Your task to perform on an android device: Open the phone app and click the voicemail tab. Image 0: 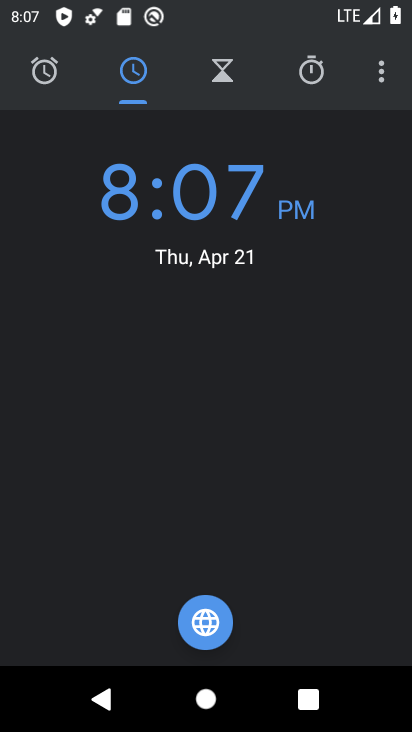
Step 0: press home button
Your task to perform on an android device: Open the phone app and click the voicemail tab. Image 1: 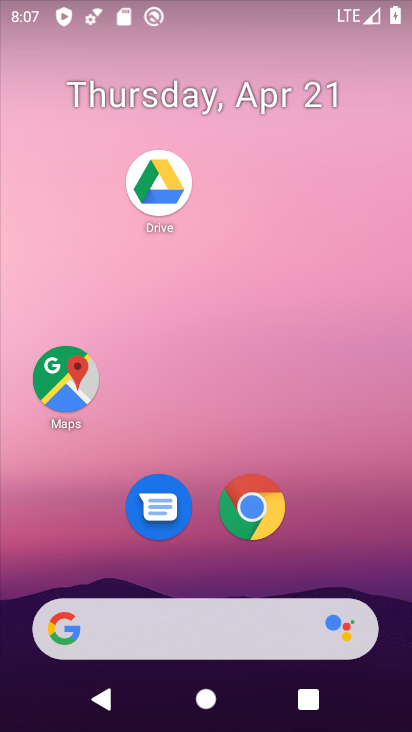
Step 1: drag from (361, 556) to (356, 179)
Your task to perform on an android device: Open the phone app and click the voicemail tab. Image 2: 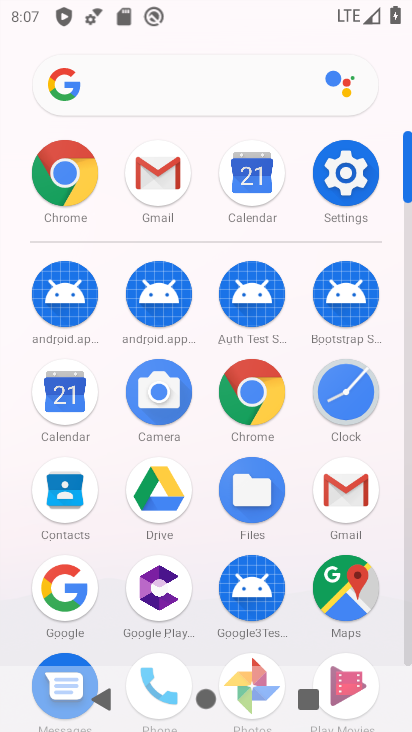
Step 2: drag from (394, 551) to (388, 285)
Your task to perform on an android device: Open the phone app and click the voicemail tab. Image 3: 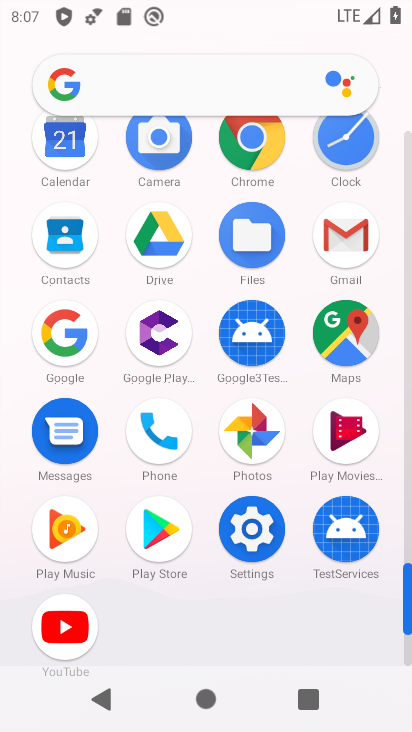
Step 3: click (162, 457)
Your task to perform on an android device: Open the phone app and click the voicemail tab. Image 4: 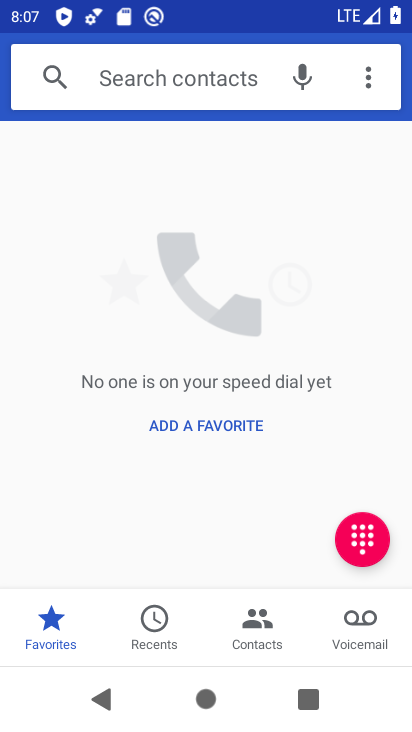
Step 4: click (359, 620)
Your task to perform on an android device: Open the phone app and click the voicemail tab. Image 5: 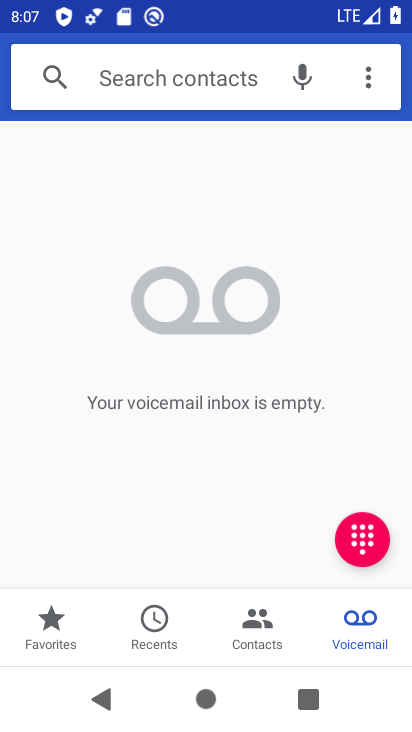
Step 5: task complete